Your task to perform on an android device: check battery use Image 0: 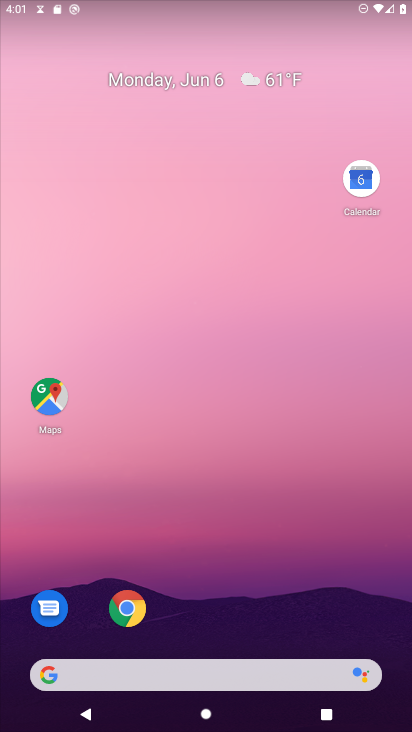
Step 0: drag from (230, 600) to (221, 22)
Your task to perform on an android device: check battery use Image 1: 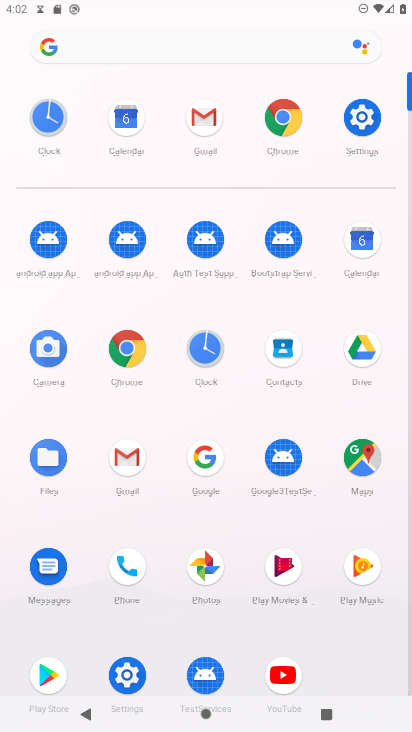
Step 1: click (370, 120)
Your task to perform on an android device: check battery use Image 2: 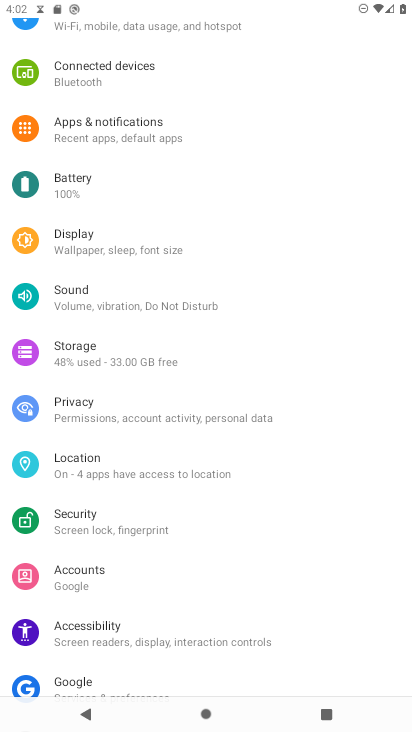
Step 2: click (77, 192)
Your task to perform on an android device: check battery use Image 3: 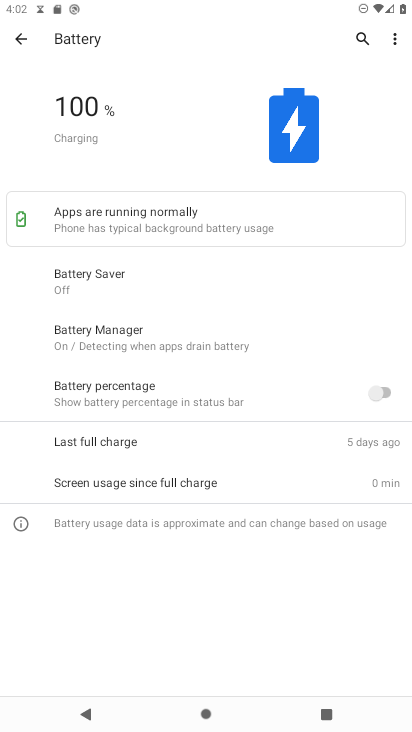
Step 3: click (393, 44)
Your task to perform on an android device: check battery use Image 4: 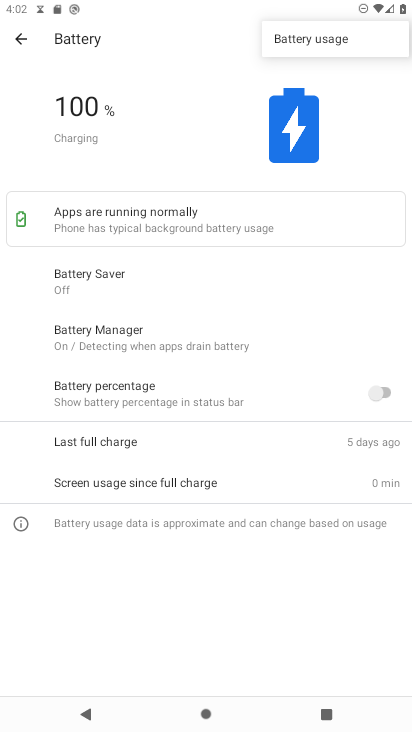
Step 4: click (281, 43)
Your task to perform on an android device: check battery use Image 5: 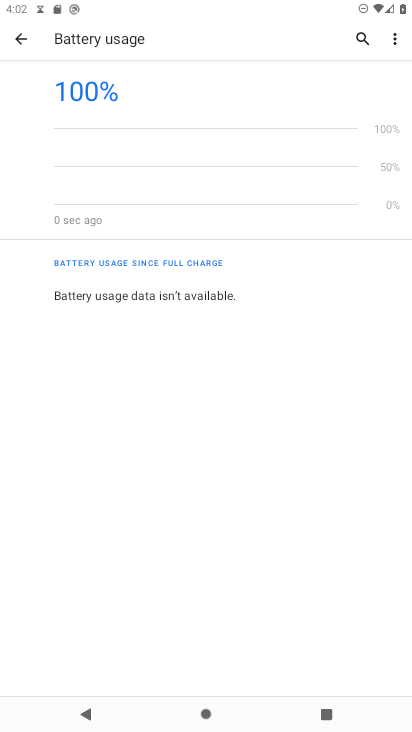
Step 5: task complete